Your task to perform on an android device: When is my next appointment? Image 0: 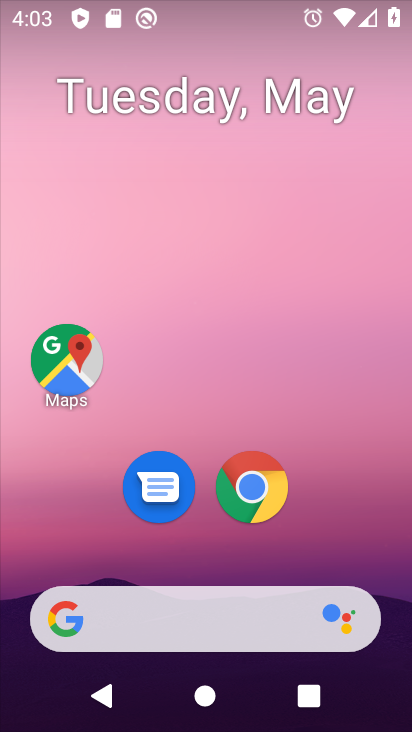
Step 0: drag from (344, 508) to (353, 144)
Your task to perform on an android device: When is my next appointment? Image 1: 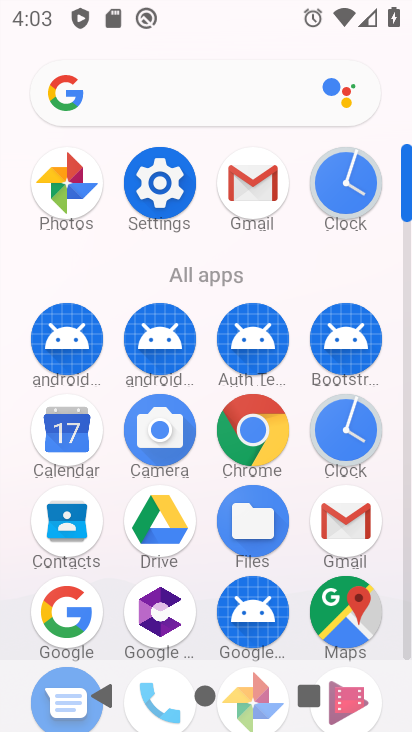
Step 1: click (80, 417)
Your task to perform on an android device: When is my next appointment? Image 2: 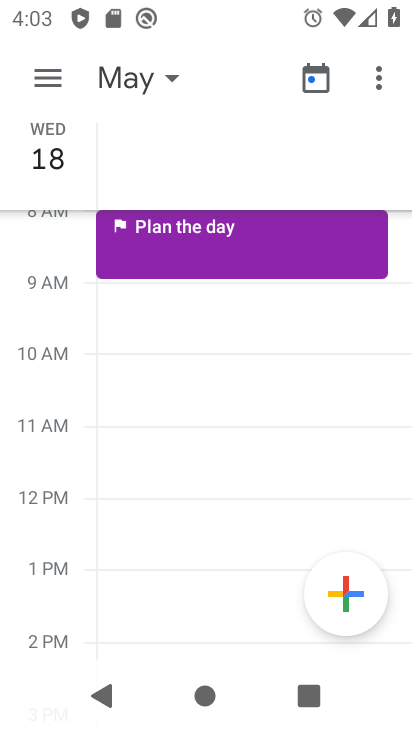
Step 2: drag from (77, 154) to (89, 405)
Your task to perform on an android device: When is my next appointment? Image 3: 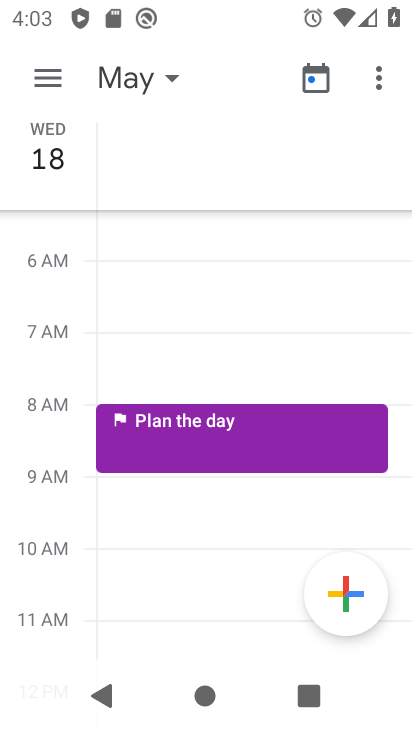
Step 3: click (66, 161)
Your task to perform on an android device: When is my next appointment? Image 4: 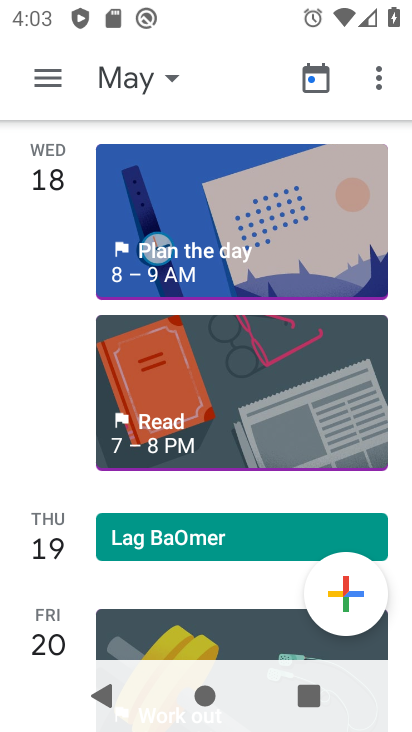
Step 4: drag from (68, 278) to (72, 420)
Your task to perform on an android device: When is my next appointment? Image 5: 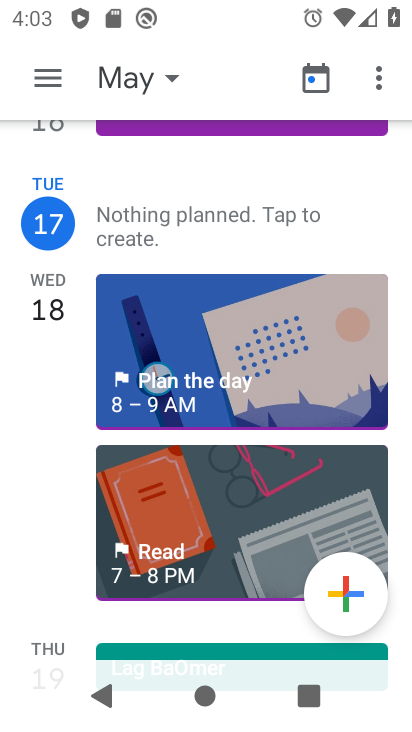
Step 5: click (50, 227)
Your task to perform on an android device: When is my next appointment? Image 6: 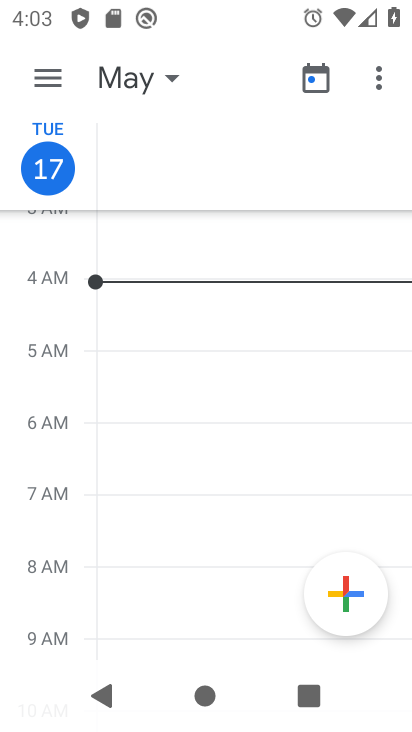
Step 6: click (36, 165)
Your task to perform on an android device: When is my next appointment? Image 7: 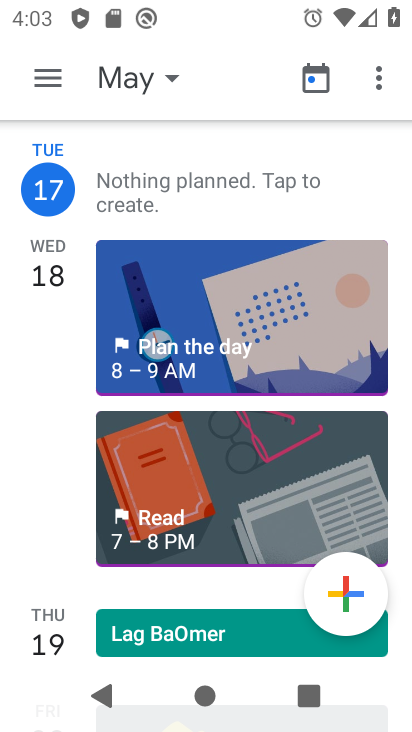
Step 7: task complete